Your task to perform on an android device: show emergency info Image 0: 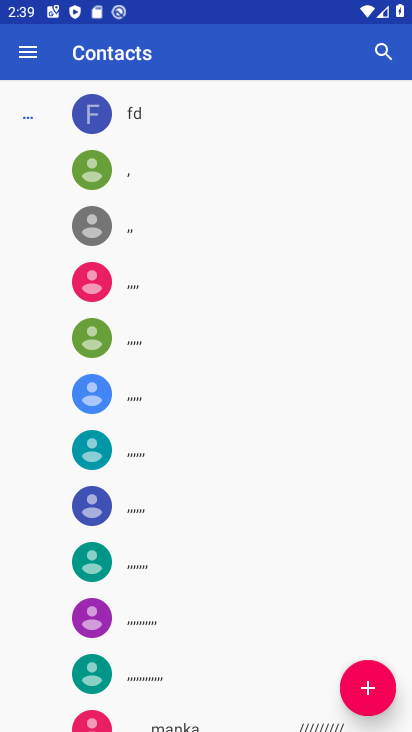
Step 0: press home button
Your task to perform on an android device: show emergency info Image 1: 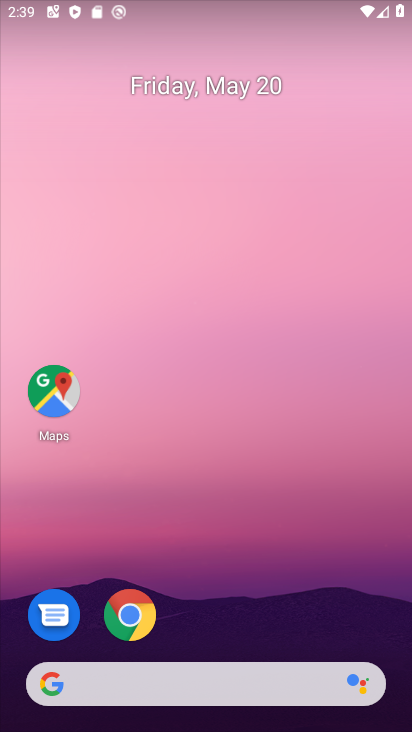
Step 1: drag from (194, 611) to (197, 274)
Your task to perform on an android device: show emergency info Image 2: 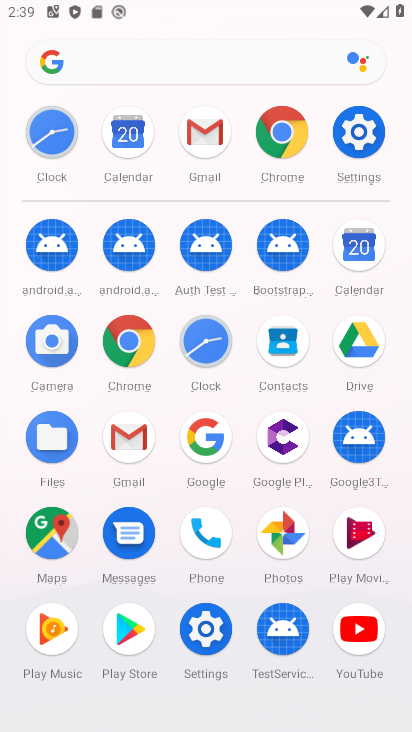
Step 2: click (354, 122)
Your task to perform on an android device: show emergency info Image 3: 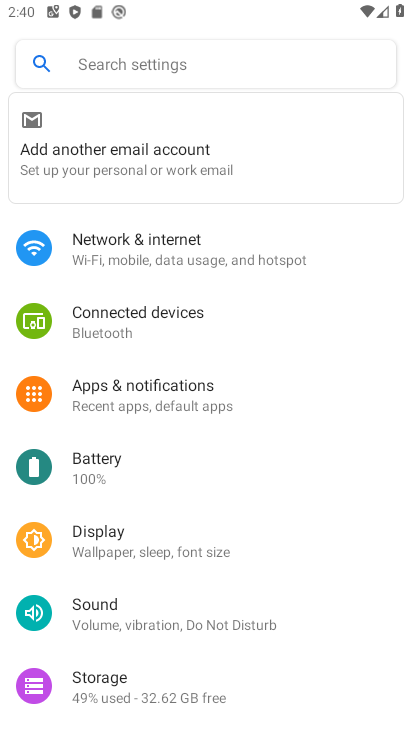
Step 3: drag from (194, 602) to (186, 151)
Your task to perform on an android device: show emergency info Image 4: 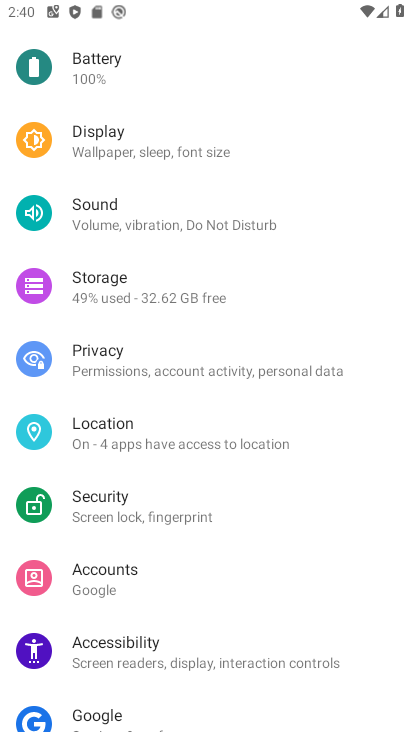
Step 4: drag from (138, 669) to (202, 317)
Your task to perform on an android device: show emergency info Image 5: 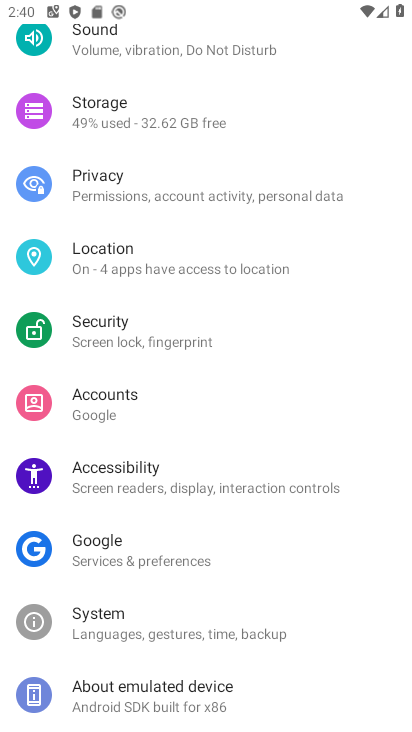
Step 5: click (138, 702)
Your task to perform on an android device: show emergency info Image 6: 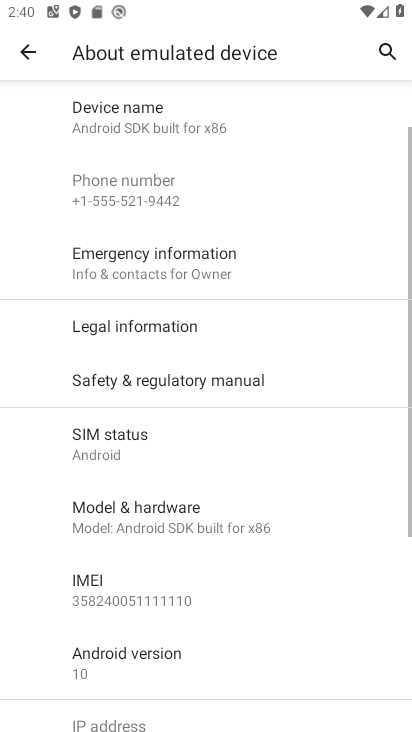
Step 6: drag from (207, 560) to (251, 313)
Your task to perform on an android device: show emergency info Image 7: 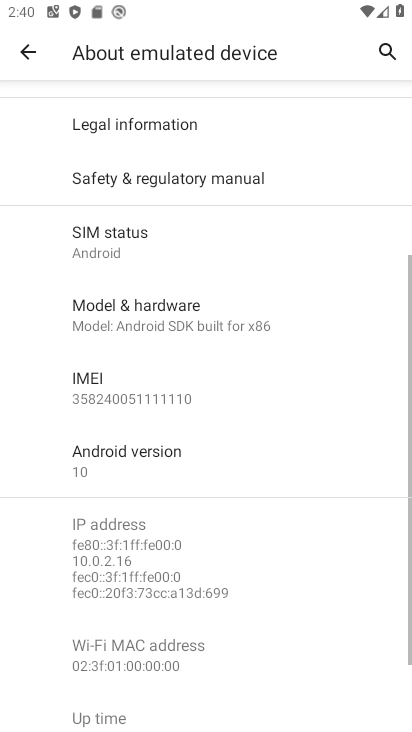
Step 7: drag from (196, 560) to (222, 222)
Your task to perform on an android device: show emergency info Image 8: 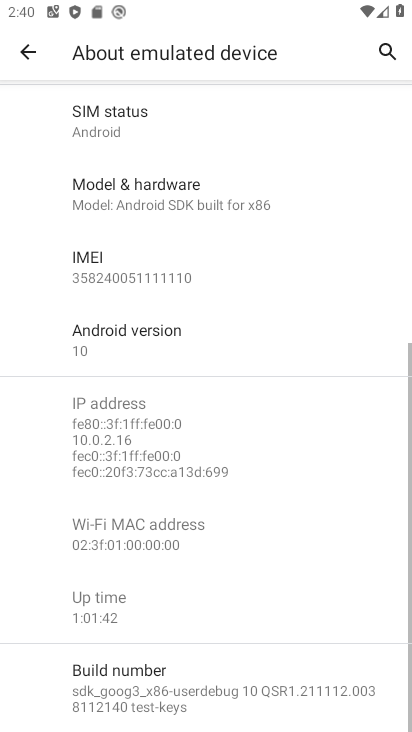
Step 8: drag from (186, 184) to (201, 510)
Your task to perform on an android device: show emergency info Image 9: 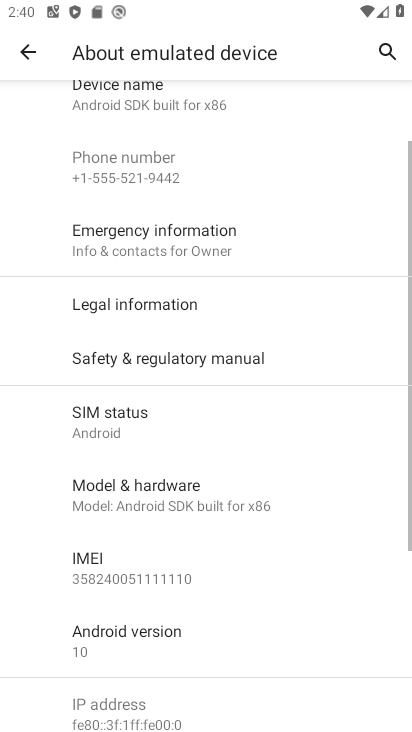
Step 9: click (205, 235)
Your task to perform on an android device: show emergency info Image 10: 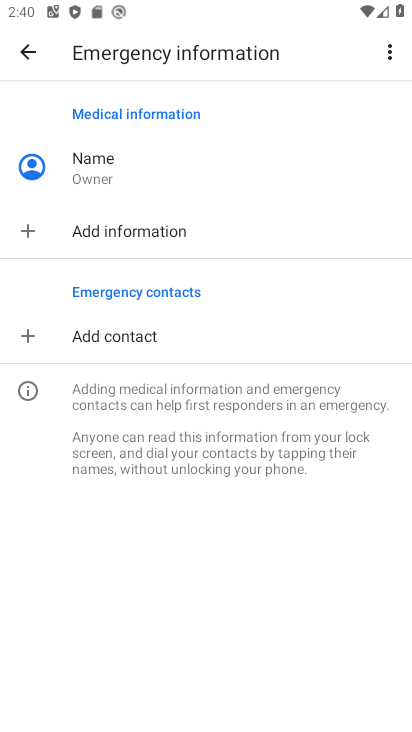
Step 10: task complete